Your task to perform on an android device: Go to wifi settings Image 0: 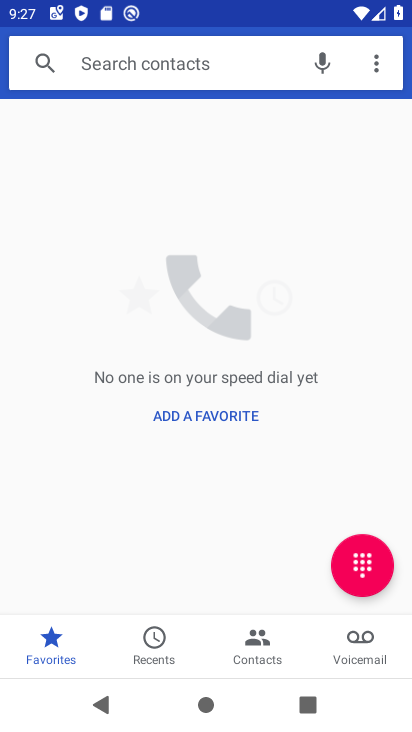
Step 0: press home button
Your task to perform on an android device: Go to wifi settings Image 1: 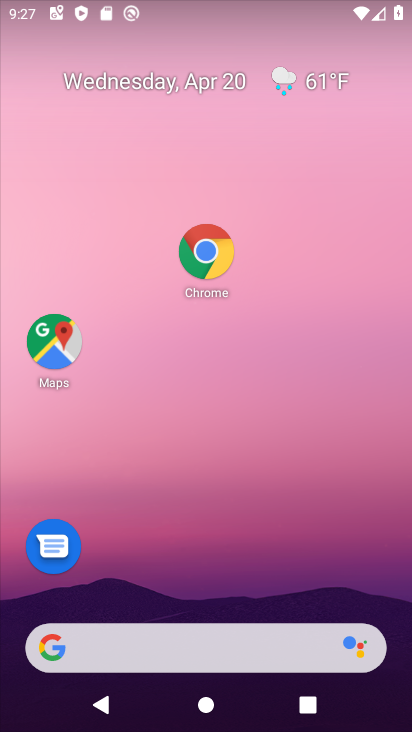
Step 1: drag from (212, 631) to (227, 218)
Your task to perform on an android device: Go to wifi settings Image 2: 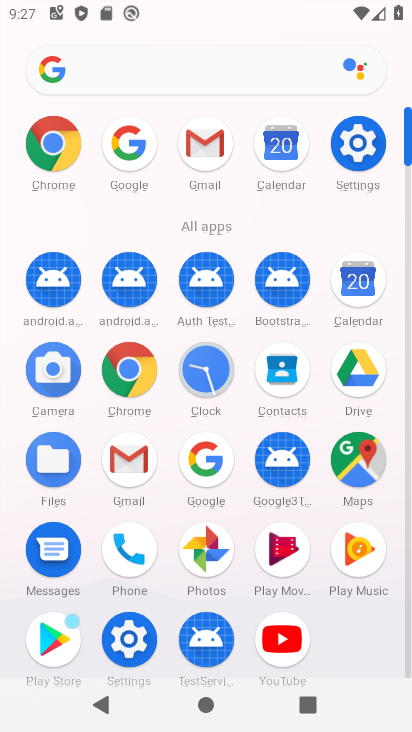
Step 2: click (370, 149)
Your task to perform on an android device: Go to wifi settings Image 3: 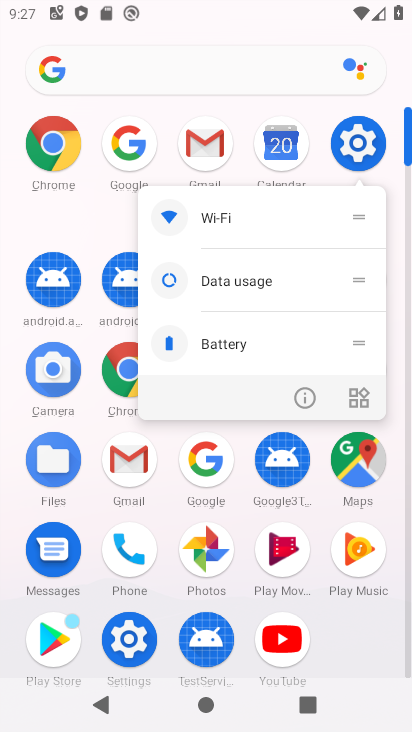
Step 3: click (359, 145)
Your task to perform on an android device: Go to wifi settings Image 4: 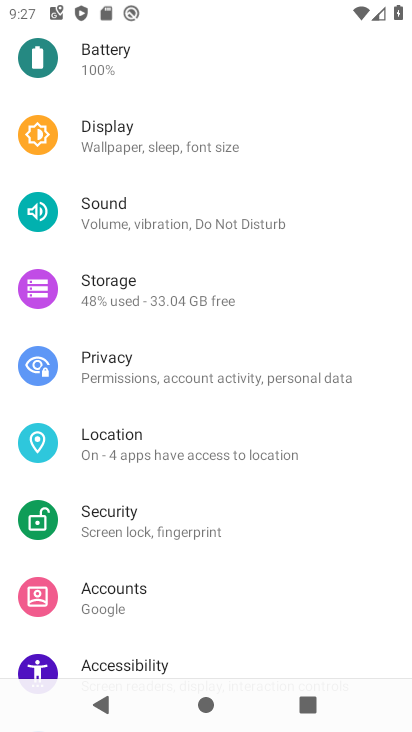
Step 4: drag from (206, 158) to (139, 521)
Your task to perform on an android device: Go to wifi settings Image 5: 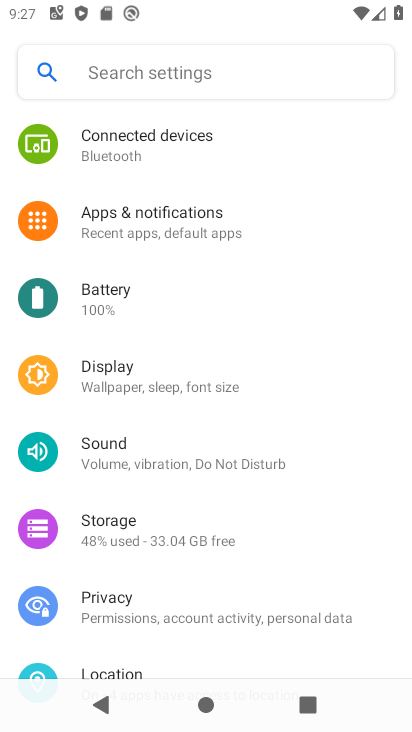
Step 5: drag from (162, 126) to (166, 432)
Your task to perform on an android device: Go to wifi settings Image 6: 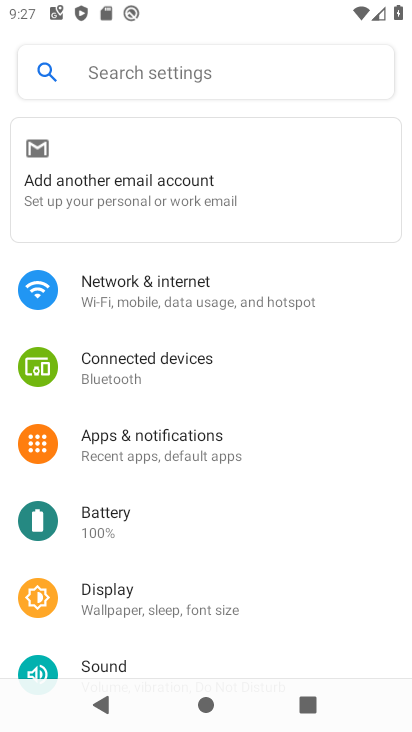
Step 6: click (187, 294)
Your task to perform on an android device: Go to wifi settings Image 7: 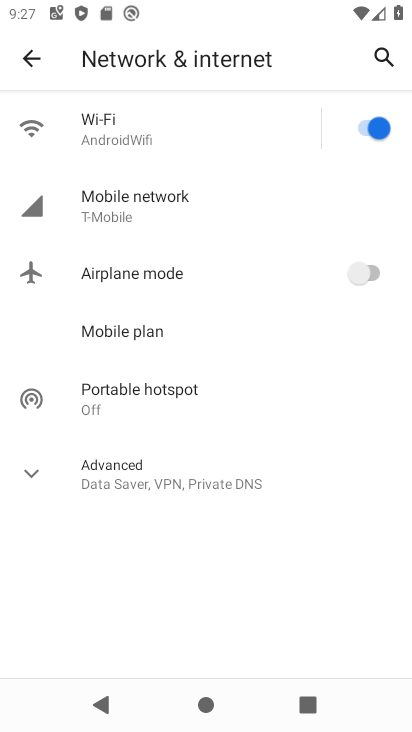
Step 7: click (120, 141)
Your task to perform on an android device: Go to wifi settings Image 8: 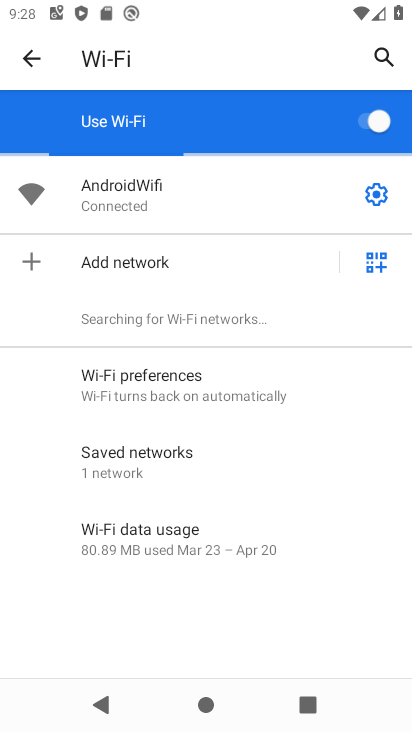
Step 8: click (383, 193)
Your task to perform on an android device: Go to wifi settings Image 9: 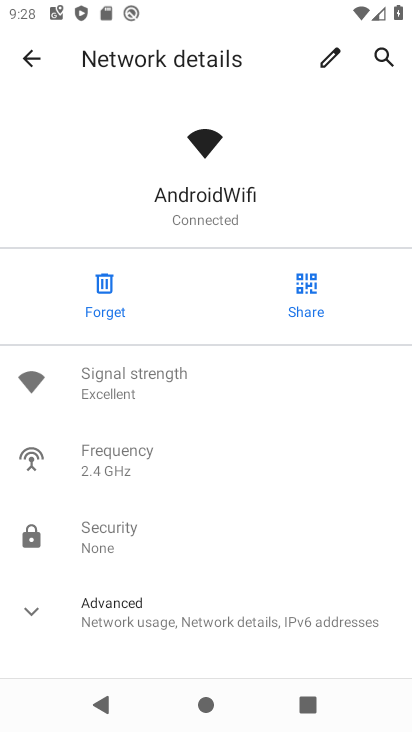
Step 9: click (146, 611)
Your task to perform on an android device: Go to wifi settings Image 10: 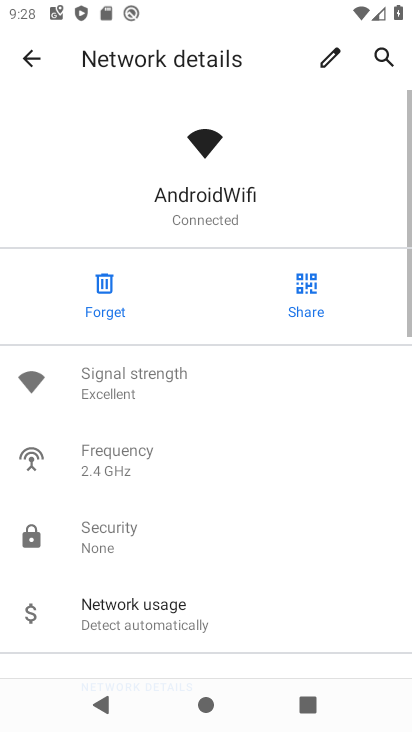
Step 10: task complete